Your task to perform on an android device: Open my contact list Image 0: 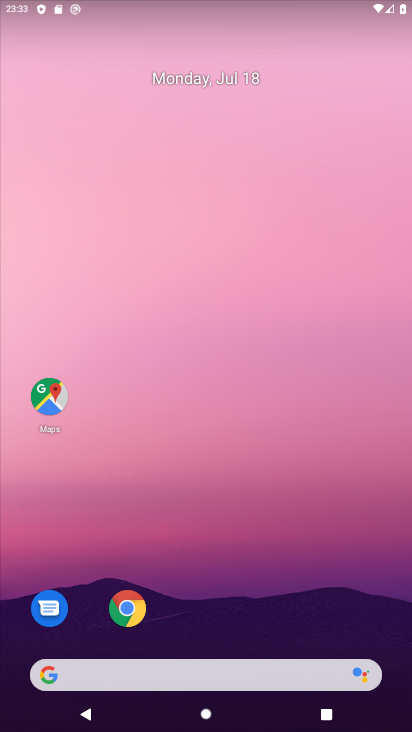
Step 0: drag from (223, 680) to (192, 145)
Your task to perform on an android device: Open my contact list Image 1: 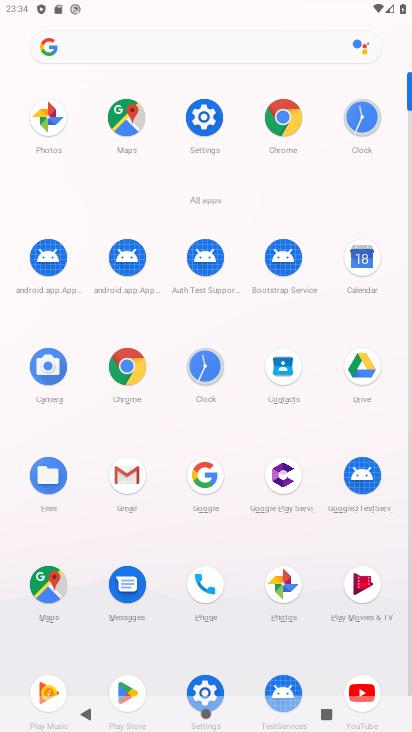
Step 1: click (283, 367)
Your task to perform on an android device: Open my contact list Image 2: 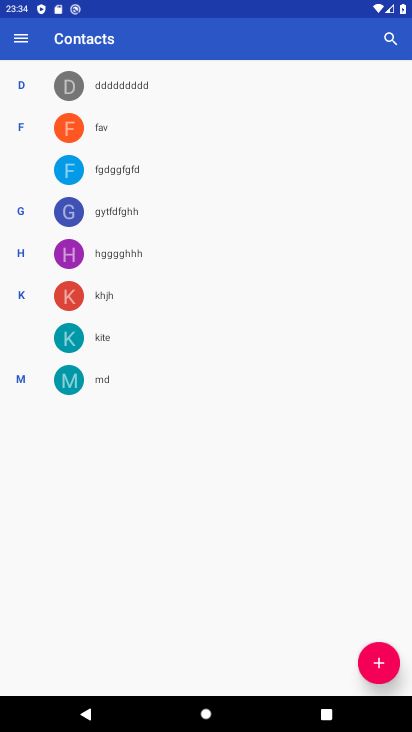
Step 2: task complete